Your task to perform on an android device: Open sound settings Image 0: 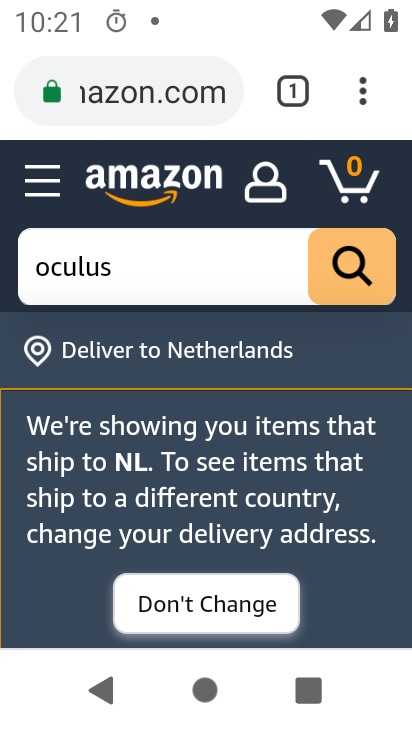
Step 0: press back button
Your task to perform on an android device: Open sound settings Image 1: 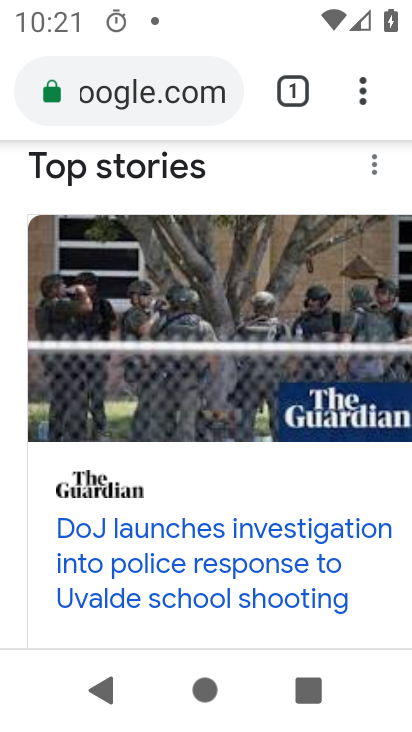
Step 1: press home button
Your task to perform on an android device: Open sound settings Image 2: 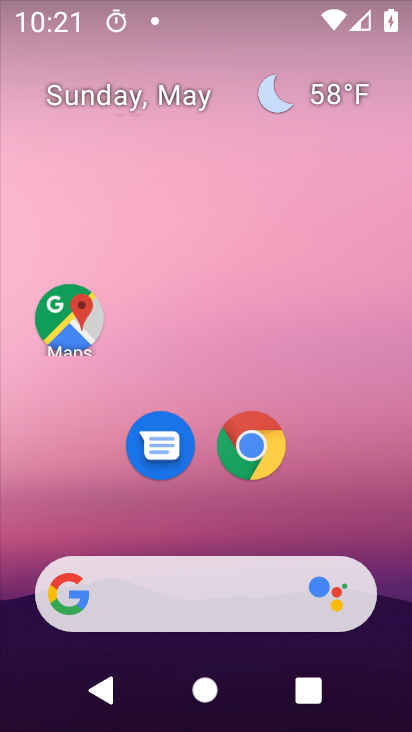
Step 2: drag from (390, 479) to (276, 0)
Your task to perform on an android device: Open sound settings Image 3: 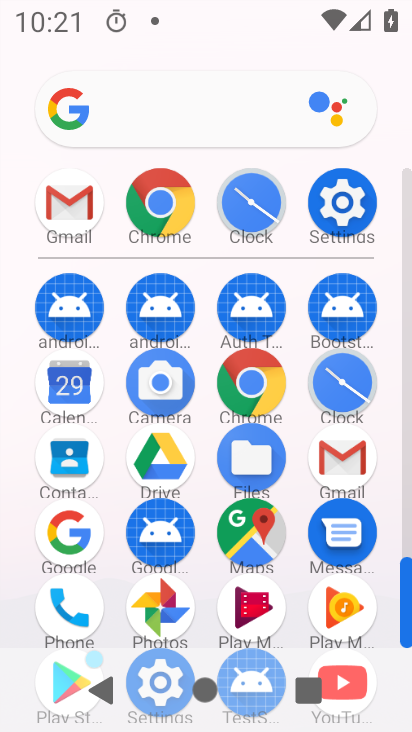
Step 3: click (345, 194)
Your task to perform on an android device: Open sound settings Image 4: 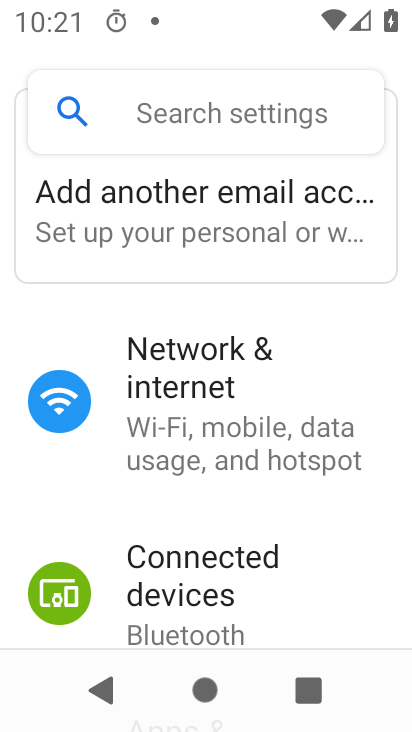
Step 4: drag from (313, 574) to (319, 134)
Your task to perform on an android device: Open sound settings Image 5: 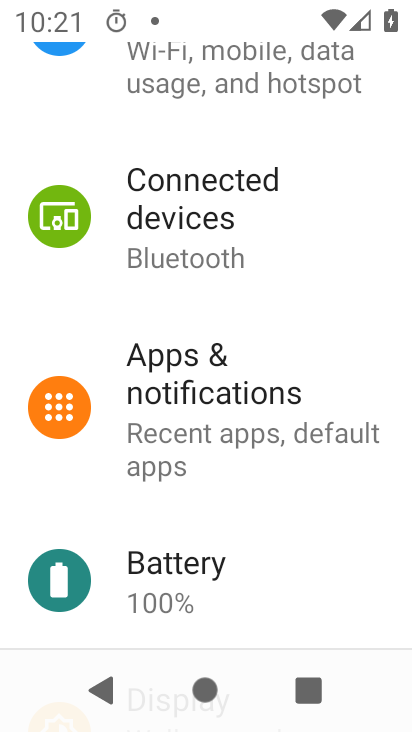
Step 5: drag from (280, 523) to (295, 109)
Your task to perform on an android device: Open sound settings Image 6: 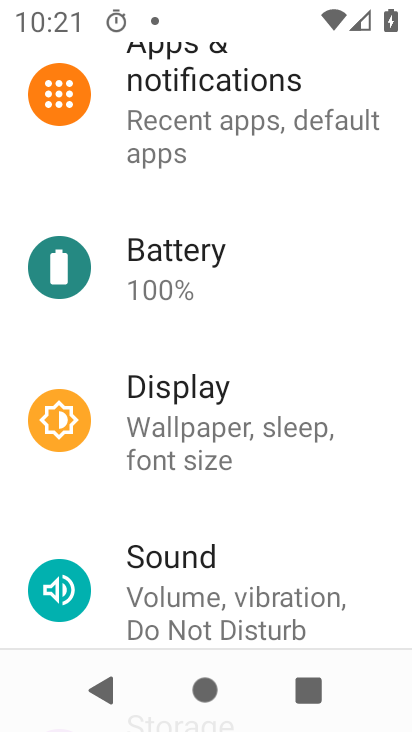
Step 6: drag from (285, 448) to (288, 244)
Your task to perform on an android device: Open sound settings Image 7: 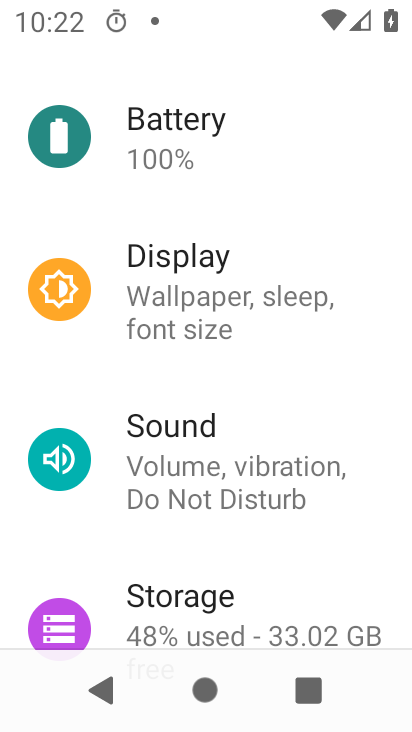
Step 7: click (299, 245)
Your task to perform on an android device: Open sound settings Image 8: 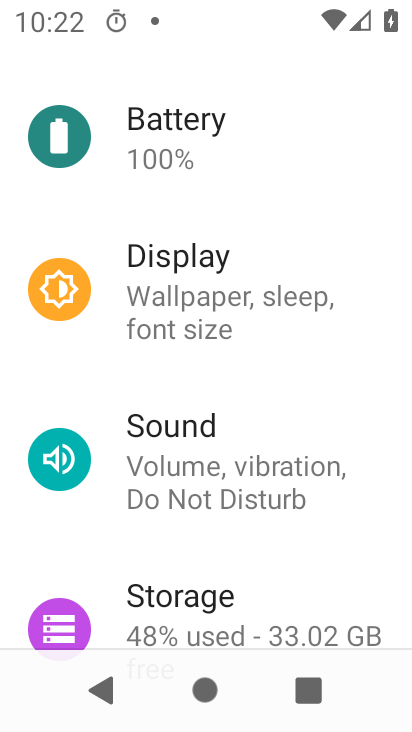
Step 8: click (219, 442)
Your task to perform on an android device: Open sound settings Image 9: 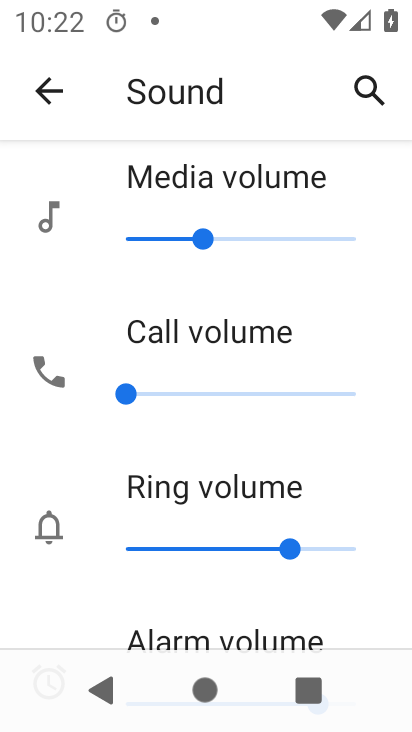
Step 9: drag from (296, 529) to (325, 145)
Your task to perform on an android device: Open sound settings Image 10: 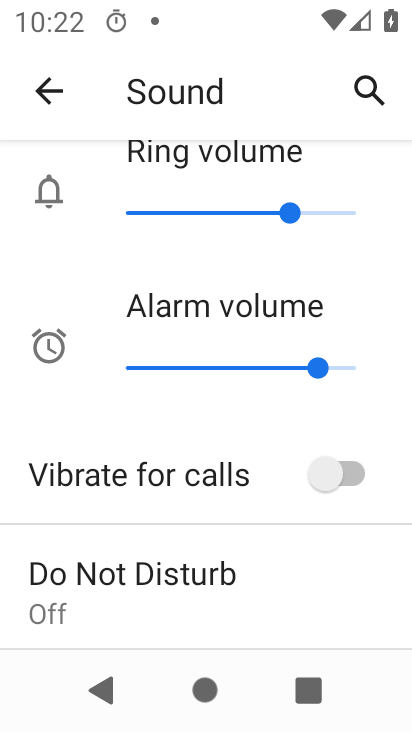
Step 10: drag from (307, 533) to (301, 130)
Your task to perform on an android device: Open sound settings Image 11: 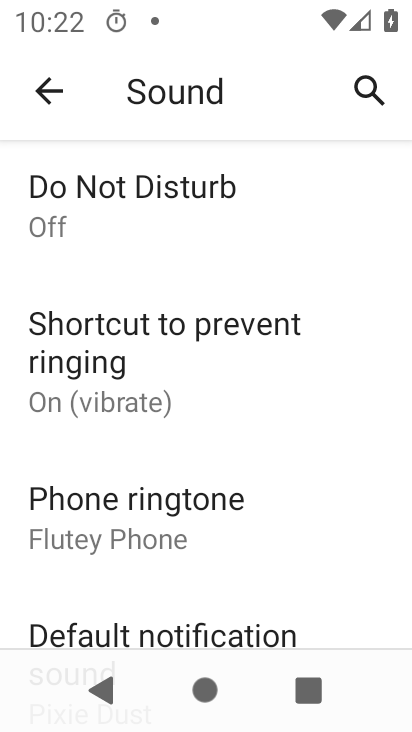
Step 11: drag from (229, 518) to (257, 151)
Your task to perform on an android device: Open sound settings Image 12: 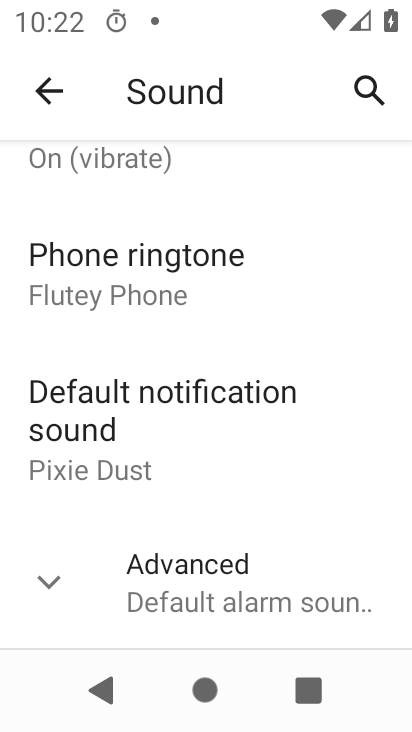
Step 12: drag from (241, 538) to (241, 218)
Your task to perform on an android device: Open sound settings Image 13: 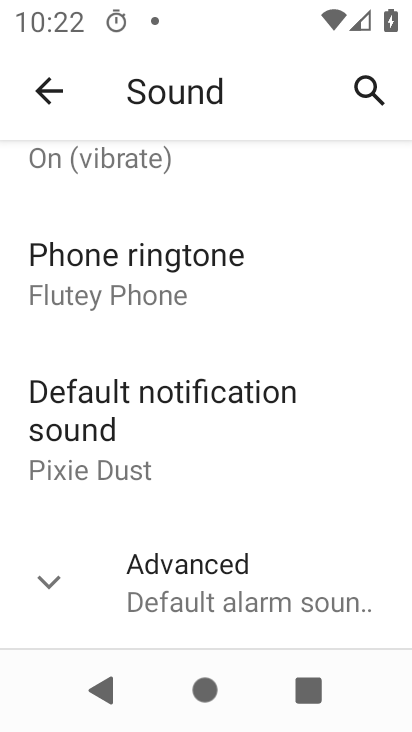
Step 13: click (51, 561)
Your task to perform on an android device: Open sound settings Image 14: 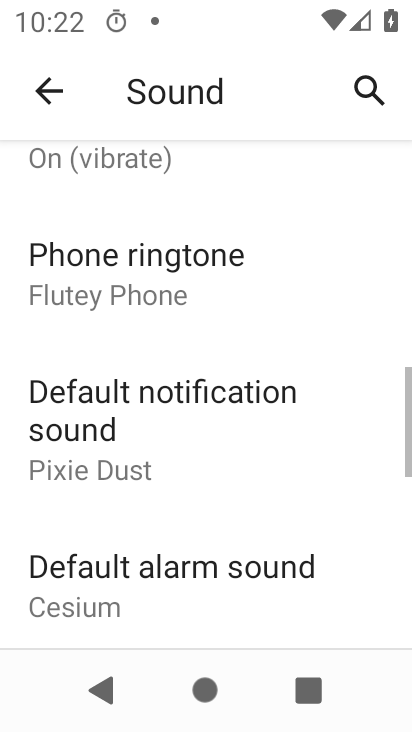
Step 14: drag from (255, 559) to (254, 141)
Your task to perform on an android device: Open sound settings Image 15: 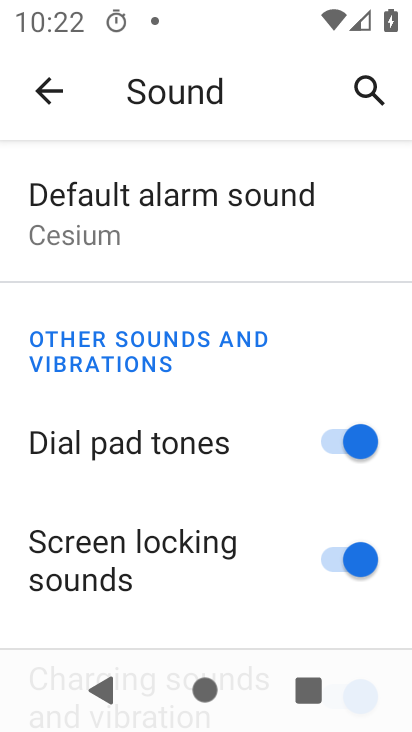
Step 15: drag from (226, 505) to (252, 107)
Your task to perform on an android device: Open sound settings Image 16: 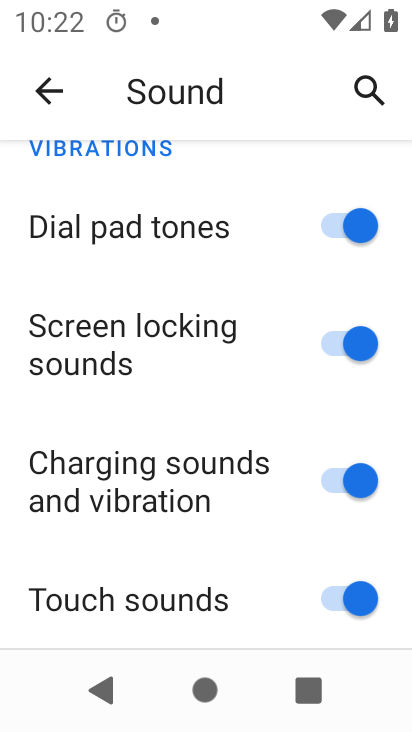
Step 16: drag from (230, 181) to (211, 552)
Your task to perform on an android device: Open sound settings Image 17: 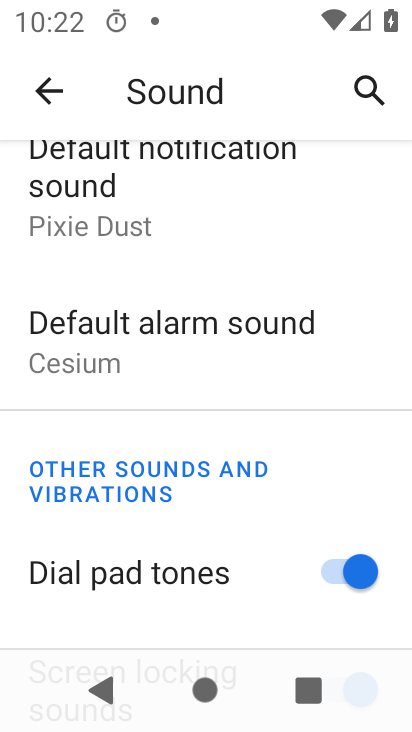
Step 17: drag from (256, 295) to (256, 555)
Your task to perform on an android device: Open sound settings Image 18: 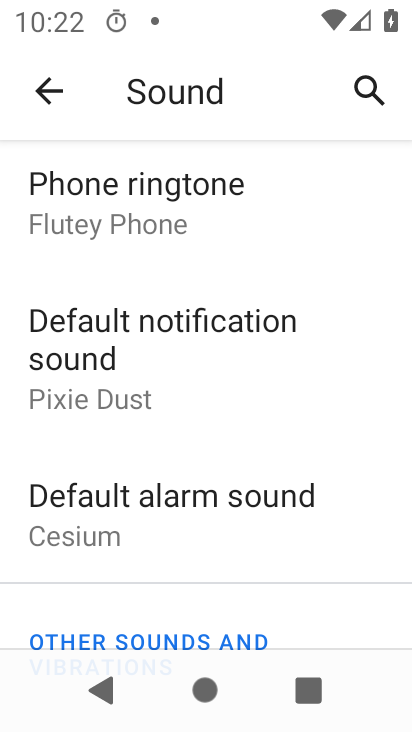
Step 18: click (256, 208)
Your task to perform on an android device: Open sound settings Image 19: 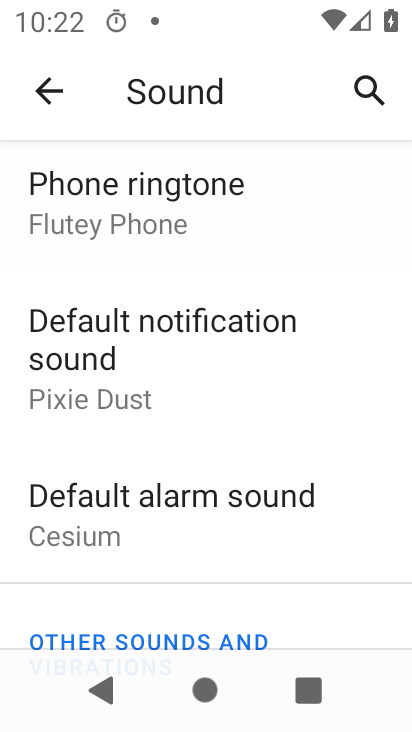
Step 19: click (254, 586)
Your task to perform on an android device: Open sound settings Image 20: 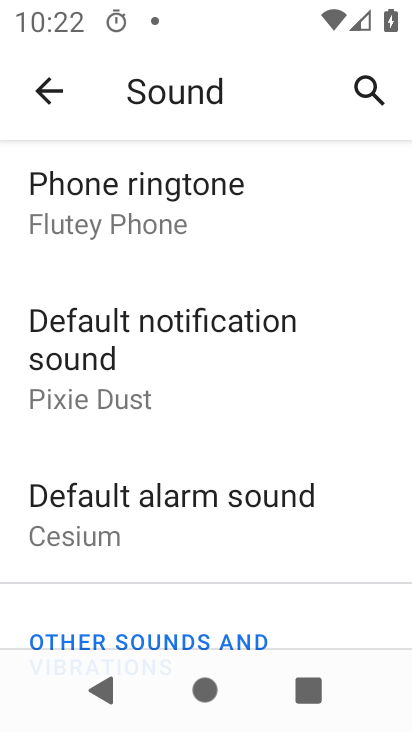
Step 20: drag from (238, 188) to (238, 504)
Your task to perform on an android device: Open sound settings Image 21: 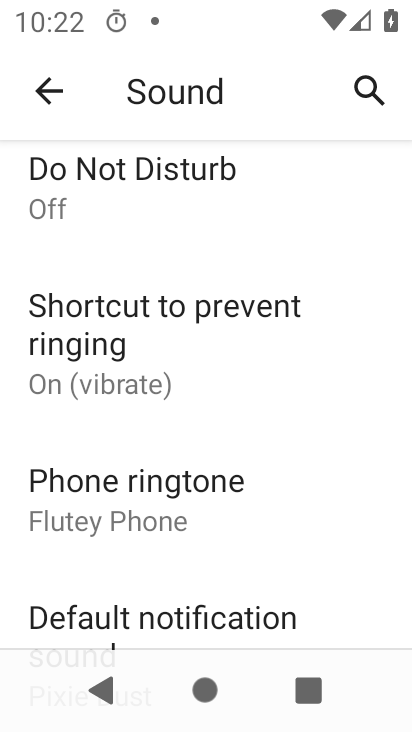
Step 21: drag from (263, 190) to (266, 579)
Your task to perform on an android device: Open sound settings Image 22: 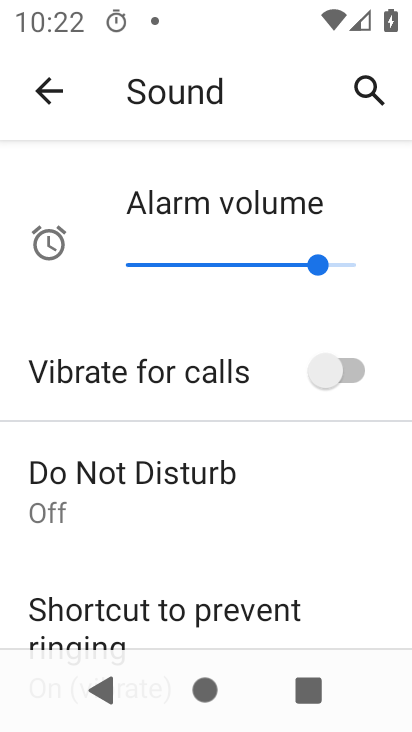
Step 22: drag from (234, 201) to (238, 566)
Your task to perform on an android device: Open sound settings Image 23: 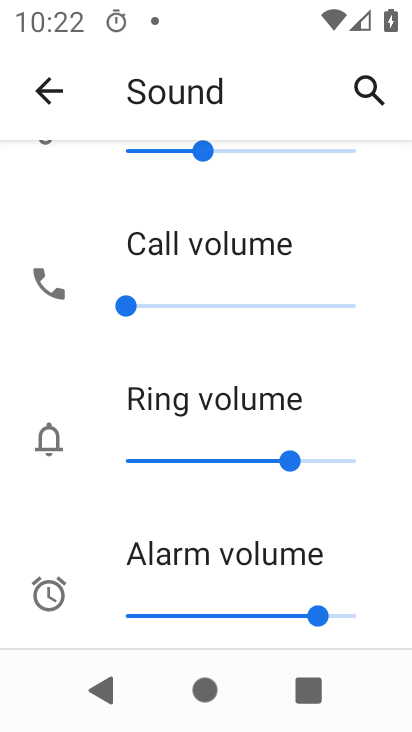
Step 23: drag from (245, 230) to (245, 466)
Your task to perform on an android device: Open sound settings Image 24: 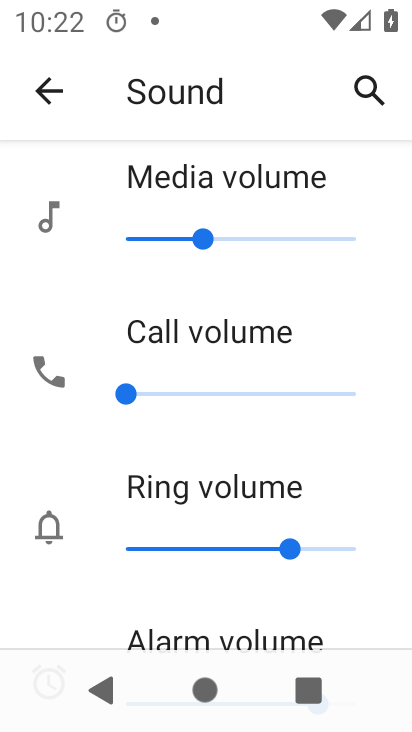
Step 24: drag from (257, 184) to (259, 523)
Your task to perform on an android device: Open sound settings Image 25: 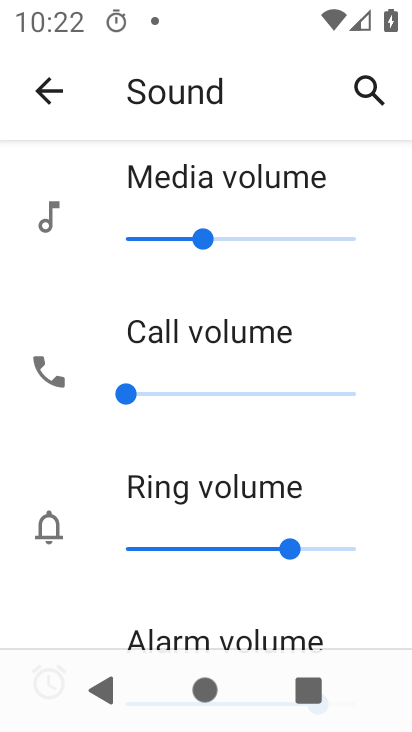
Step 25: drag from (248, 579) to (261, 148)
Your task to perform on an android device: Open sound settings Image 26: 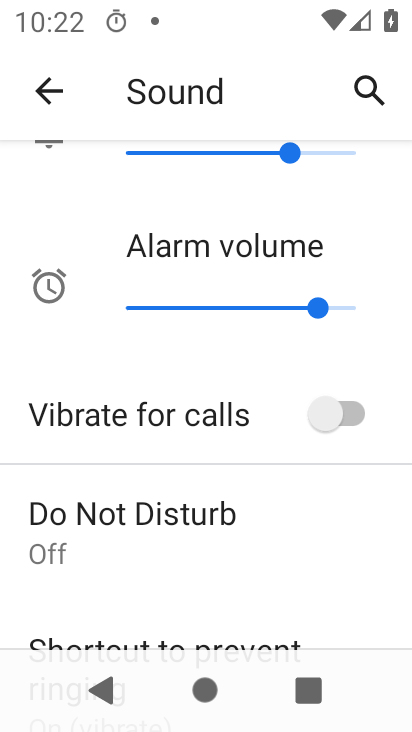
Step 26: click (246, 213)
Your task to perform on an android device: Open sound settings Image 27: 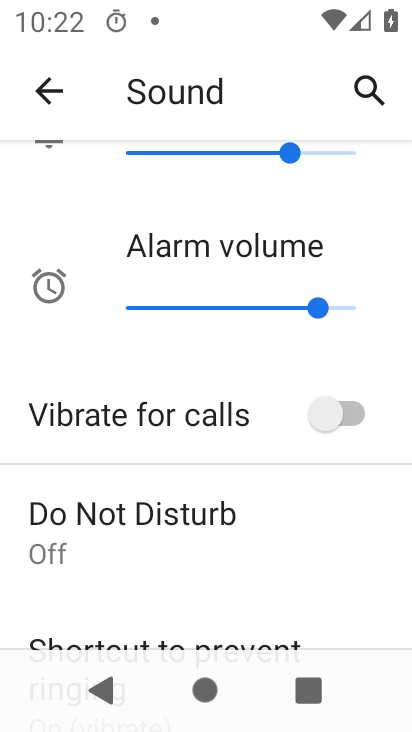
Step 27: task complete